Your task to perform on an android device: Search for pizza restaurants on Maps Image 0: 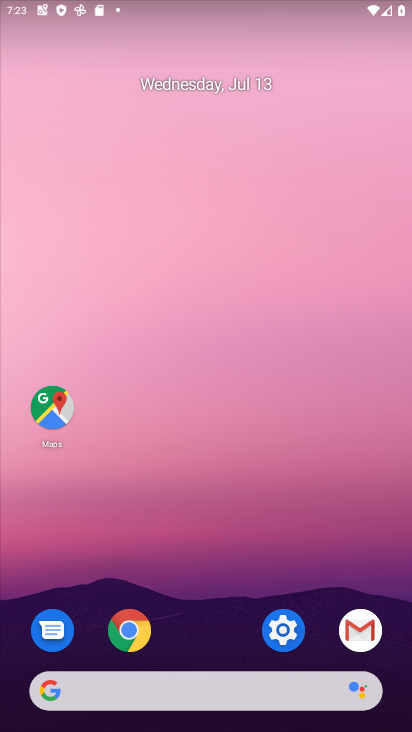
Step 0: click (36, 404)
Your task to perform on an android device: Search for pizza restaurants on Maps Image 1: 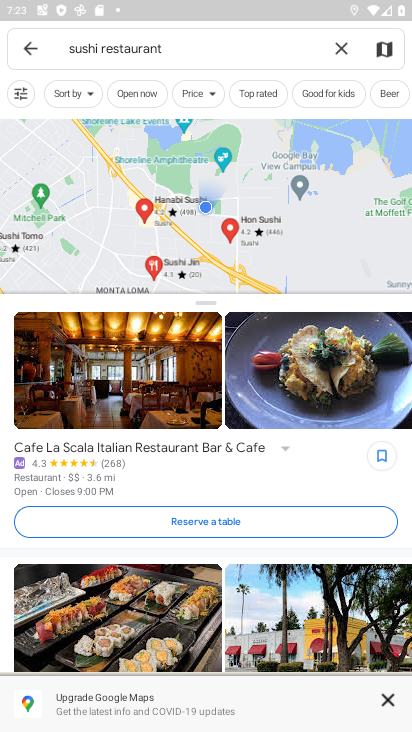
Step 1: click (339, 42)
Your task to perform on an android device: Search for pizza restaurants on Maps Image 2: 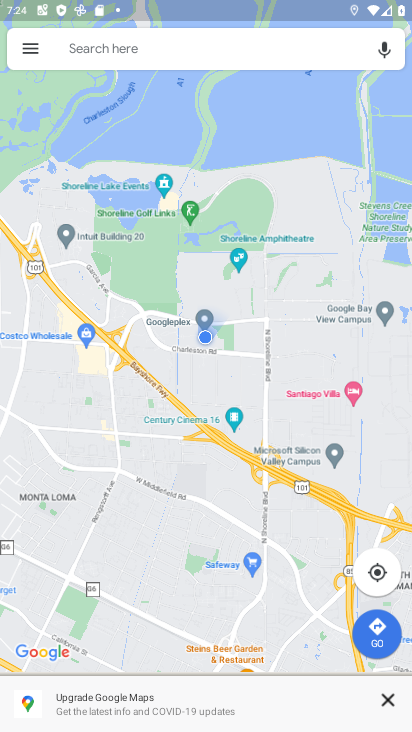
Step 2: click (135, 58)
Your task to perform on an android device: Search for pizza restaurants on Maps Image 3: 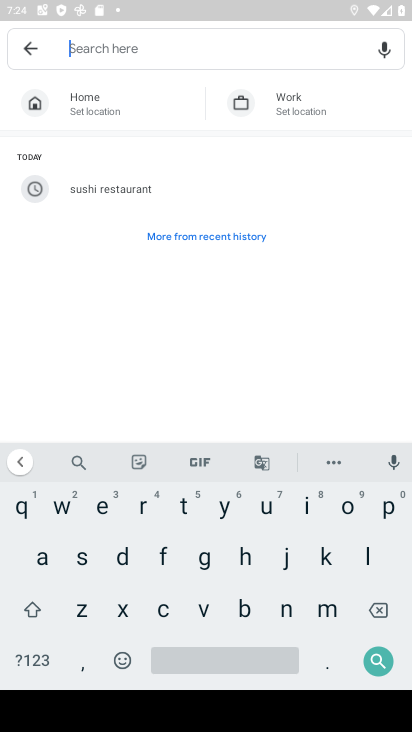
Step 3: click (386, 509)
Your task to perform on an android device: Search for pizza restaurants on Maps Image 4: 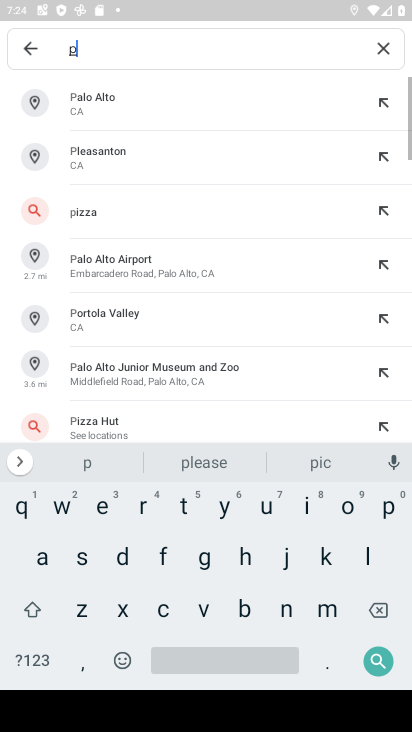
Step 4: click (305, 502)
Your task to perform on an android device: Search for pizza restaurants on Maps Image 5: 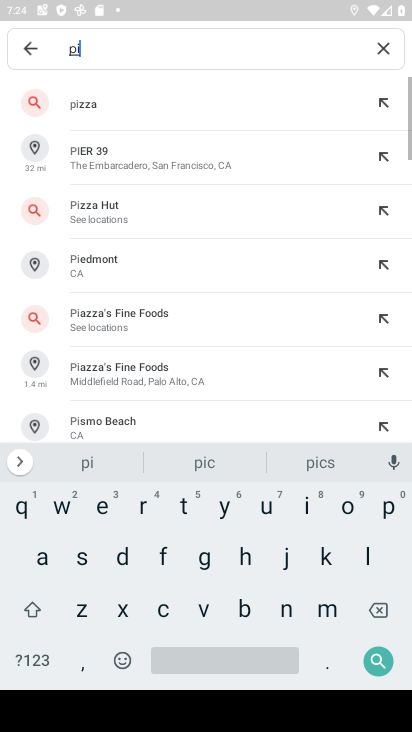
Step 5: click (78, 606)
Your task to perform on an android device: Search for pizza restaurants on Maps Image 6: 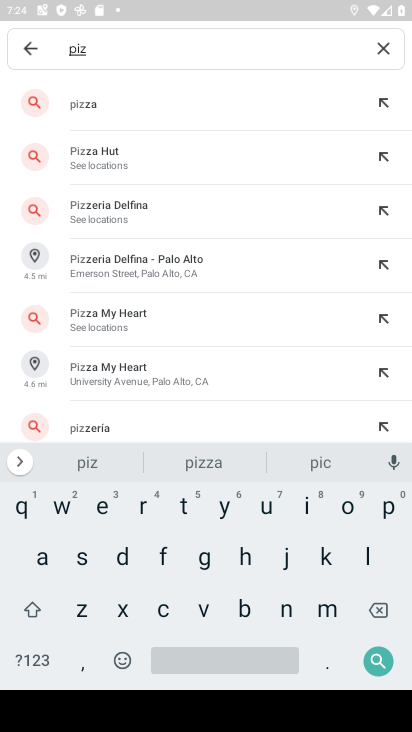
Step 6: click (200, 457)
Your task to perform on an android device: Search for pizza restaurants on Maps Image 7: 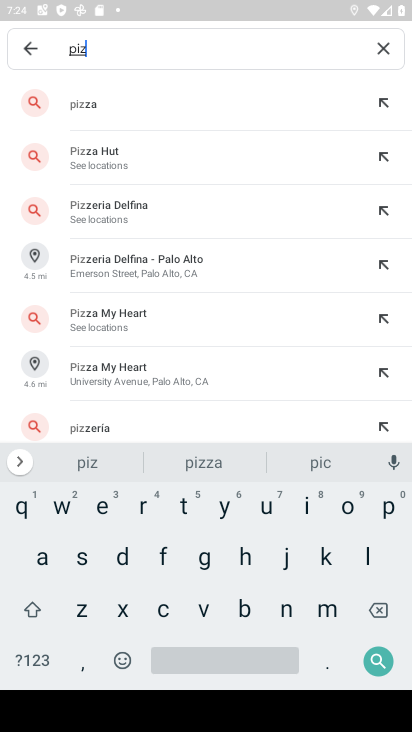
Step 7: click (199, 458)
Your task to perform on an android device: Search for pizza restaurants on Maps Image 8: 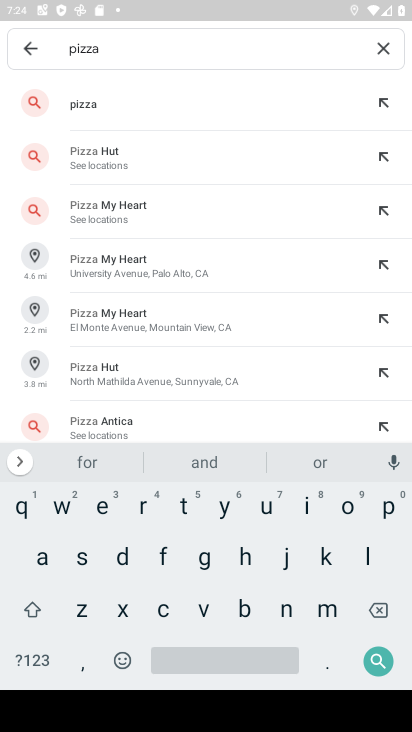
Step 8: click (137, 505)
Your task to perform on an android device: Search for pizza restaurants on Maps Image 9: 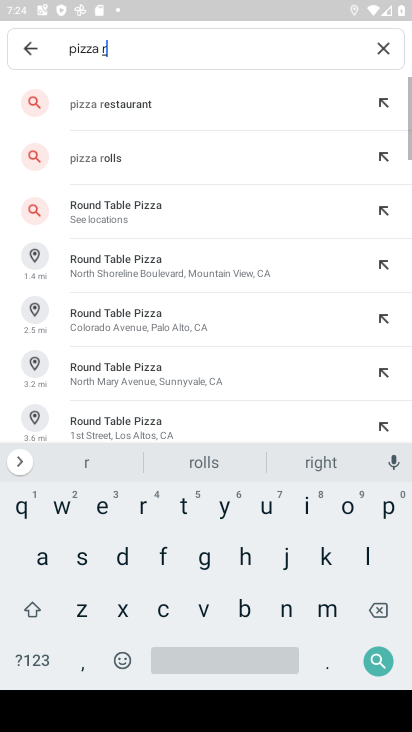
Step 9: click (107, 509)
Your task to perform on an android device: Search for pizza restaurants on Maps Image 10: 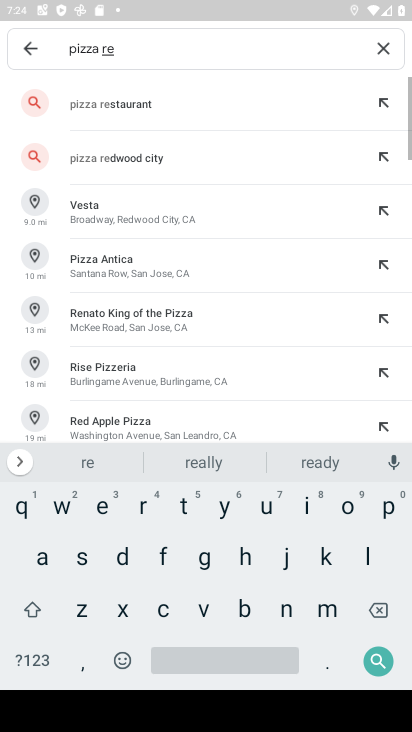
Step 10: click (138, 115)
Your task to perform on an android device: Search for pizza restaurants on Maps Image 11: 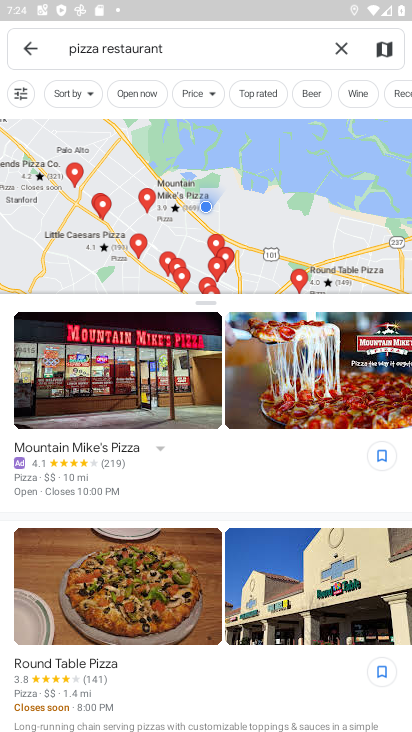
Step 11: task complete